Your task to perform on an android device: Show me recent news Image 0: 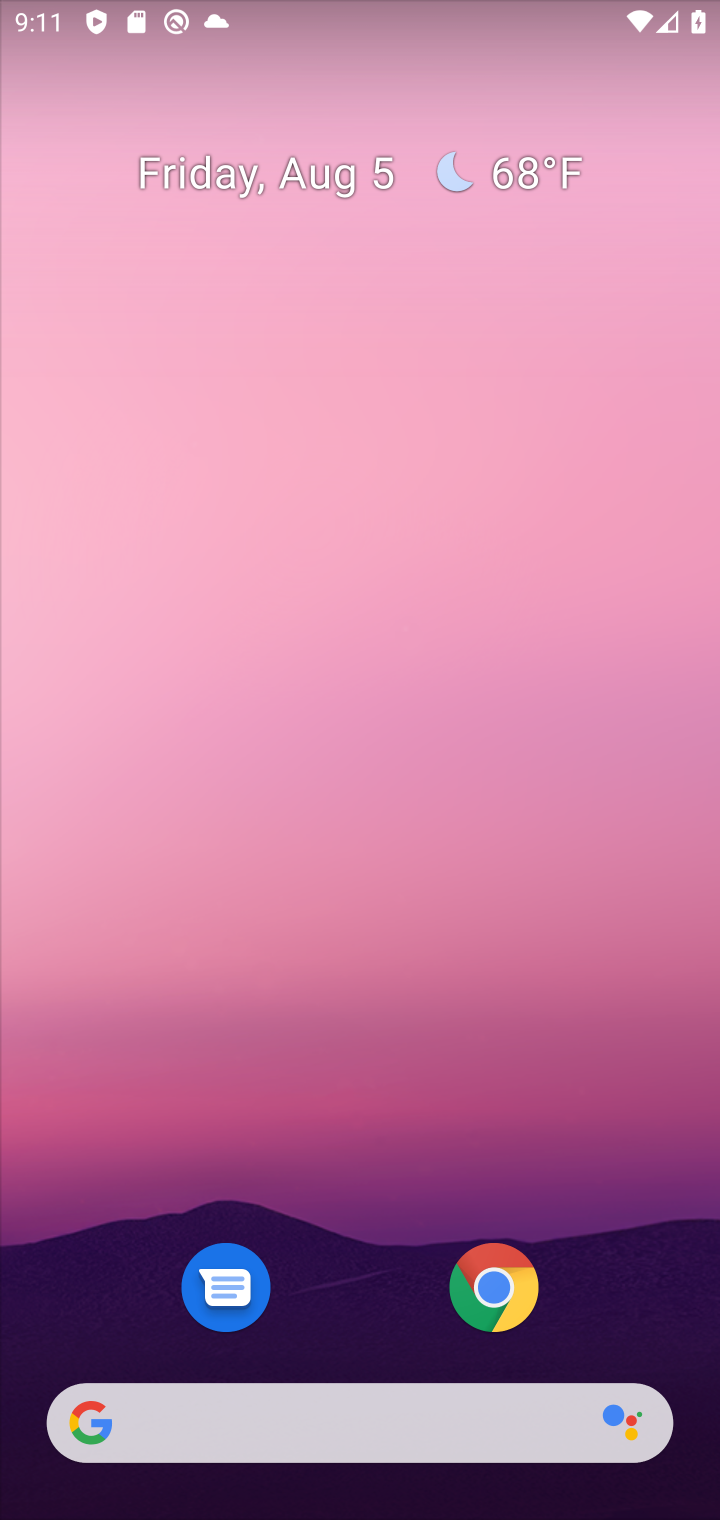
Step 0: drag from (3, 418) to (711, 422)
Your task to perform on an android device: Show me recent news Image 1: 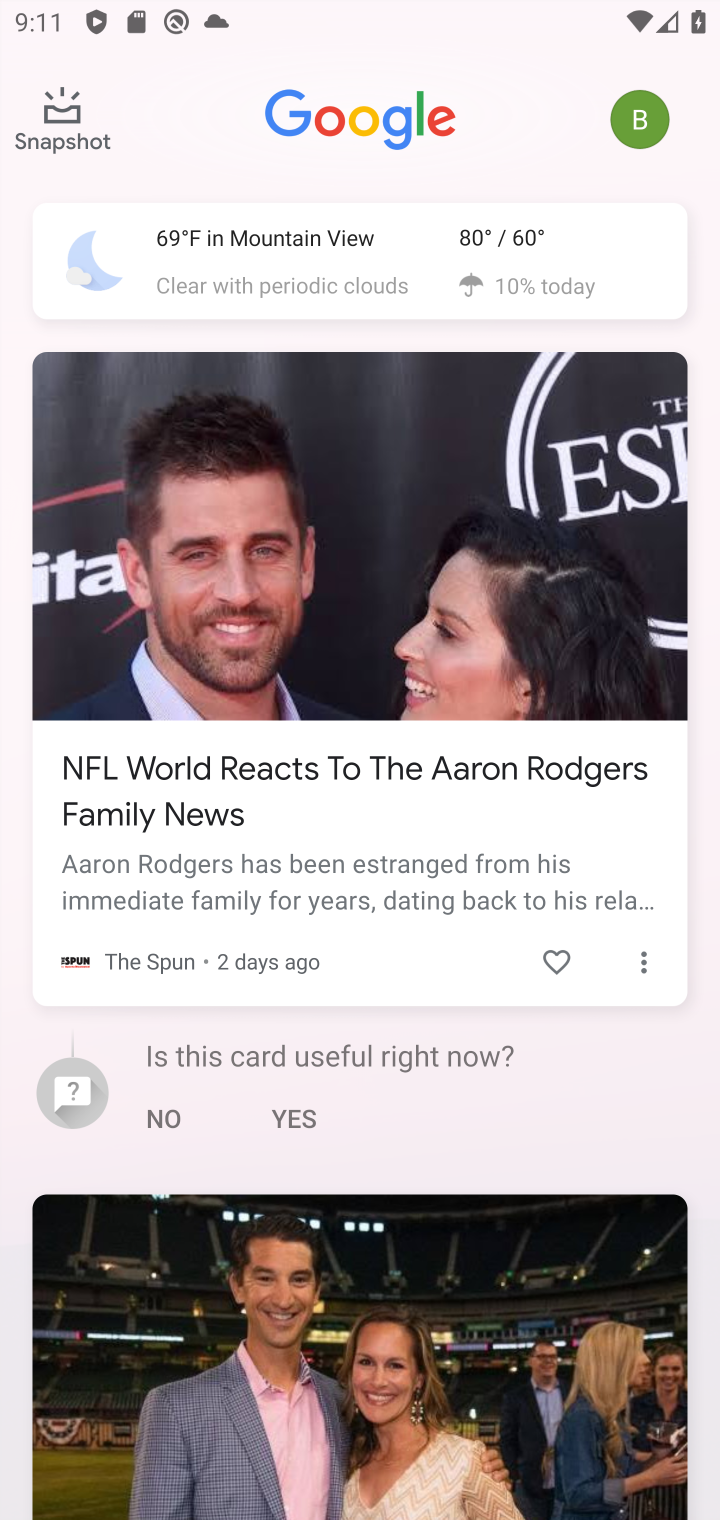
Step 1: task complete